Your task to perform on an android device: create a new album in the google photos Image 0: 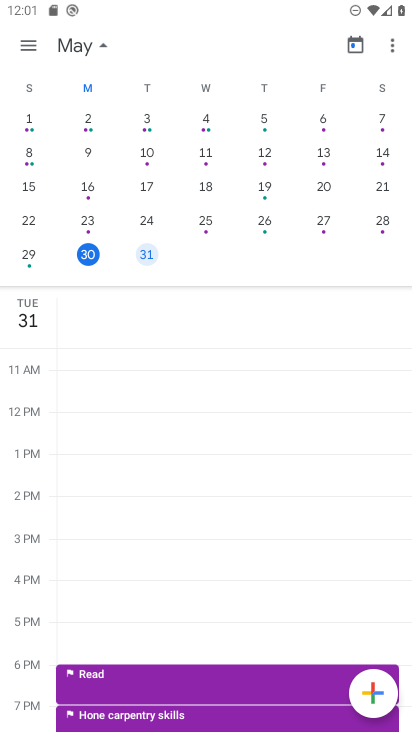
Step 0: drag from (215, 504) to (201, 101)
Your task to perform on an android device: create a new album in the google photos Image 1: 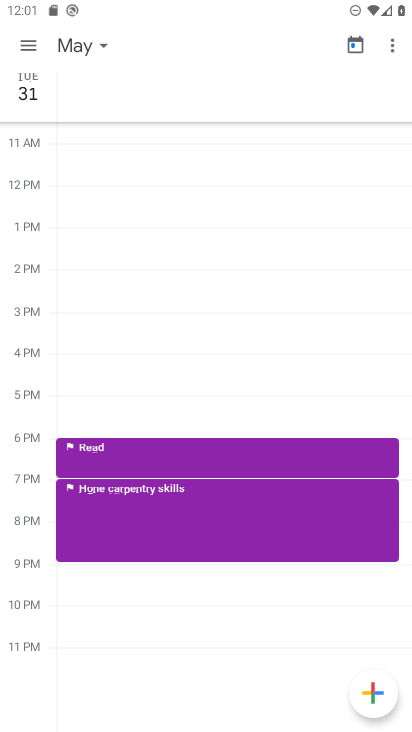
Step 1: press back button
Your task to perform on an android device: create a new album in the google photos Image 2: 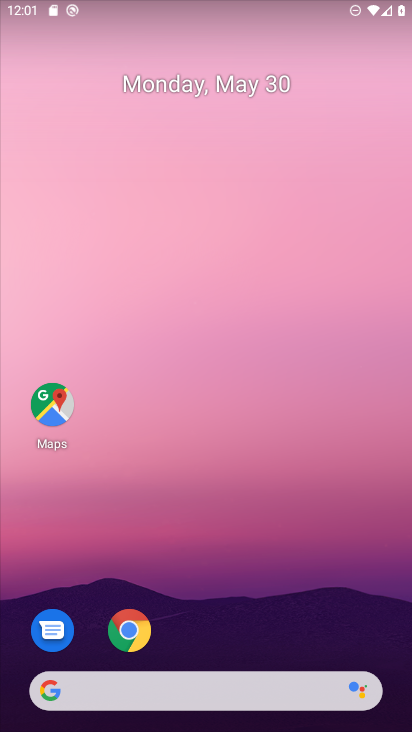
Step 2: drag from (301, 648) to (352, 69)
Your task to perform on an android device: create a new album in the google photos Image 3: 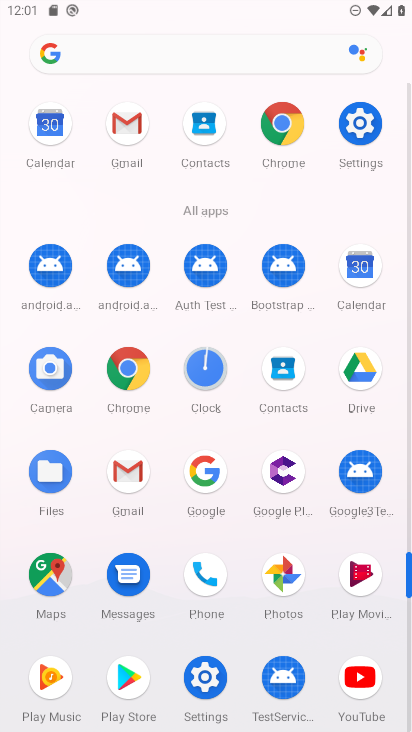
Step 3: click (278, 571)
Your task to perform on an android device: create a new album in the google photos Image 4: 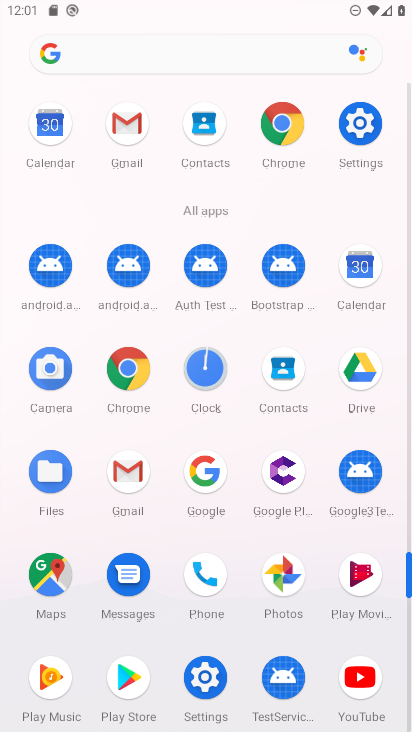
Step 4: click (277, 572)
Your task to perform on an android device: create a new album in the google photos Image 5: 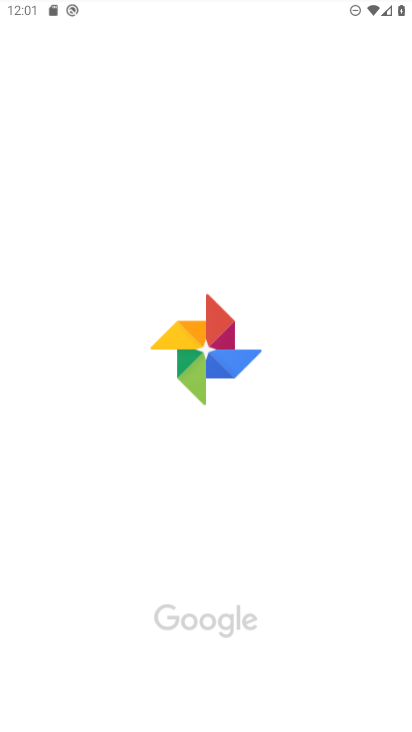
Step 5: click (283, 571)
Your task to perform on an android device: create a new album in the google photos Image 6: 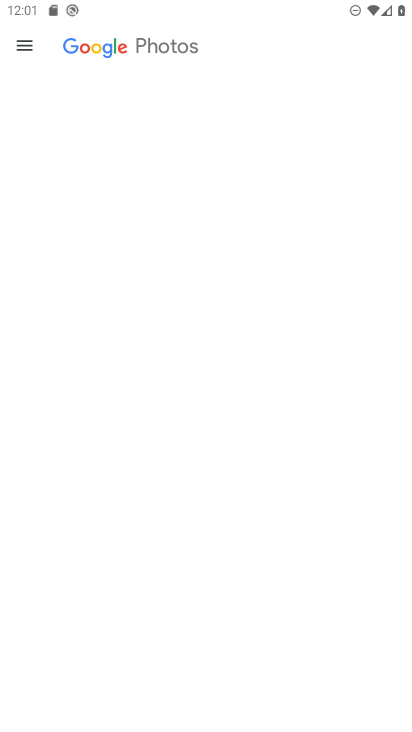
Step 6: press back button
Your task to perform on an android device: create a new album in the google photos Image 7: 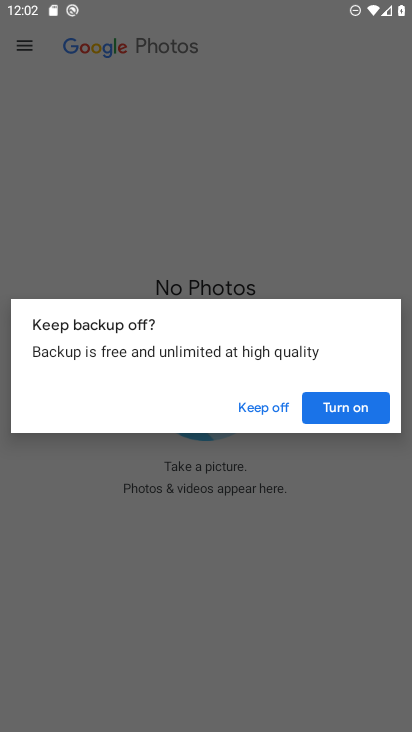
Step 7: click (275, 403)
Your task to perform on an android device: create a new album in the google photos Image 8: 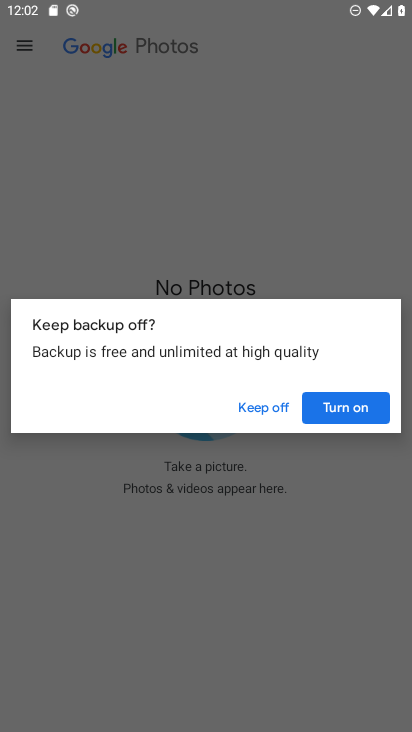
Step 8: click (275, 403)
Your task to perform on an android device: create a new album in the google photos Image 9: 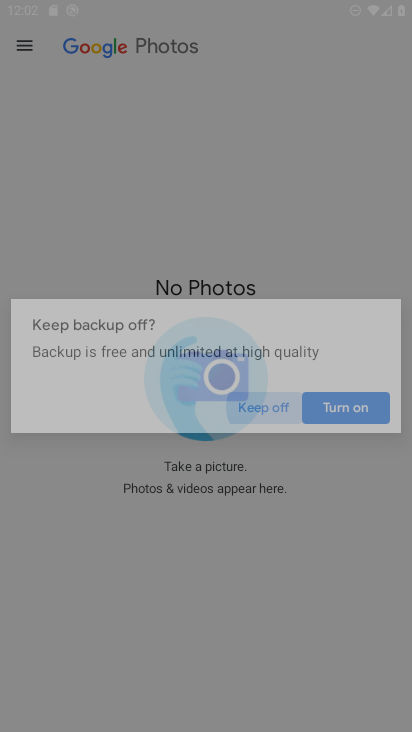
Step 9: click (275, 403)
Your task to perform on an android device: create a new album in the google photos Image 10: 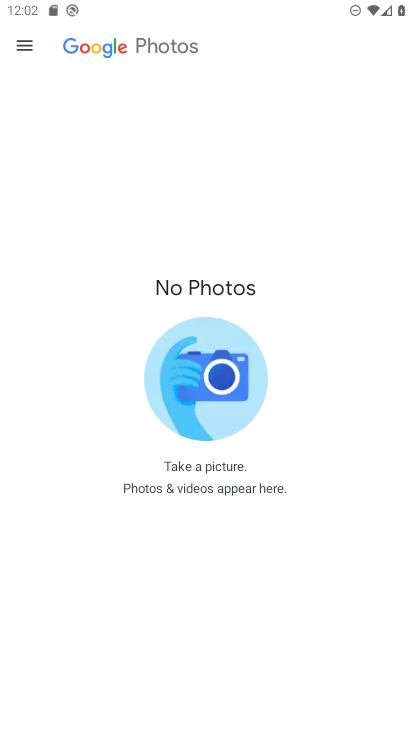
Step 10: click (31, 39)
Your task to perform on an android device: create a new album in the google photos Image 11: 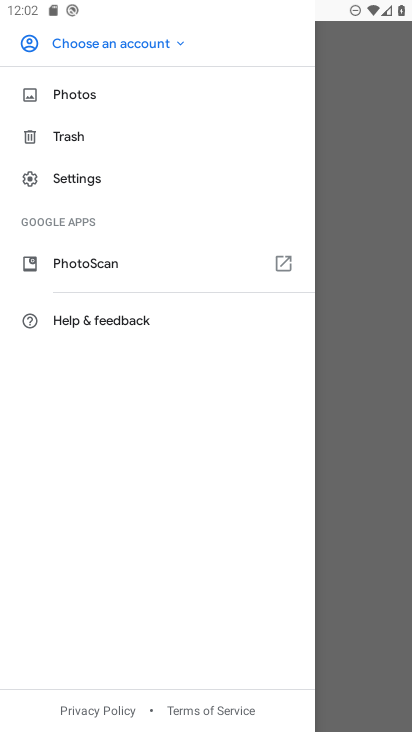
Step 11: task complete